Your task to perform on an android device: Open Google Chrome and open the bookmarks view Image 0: 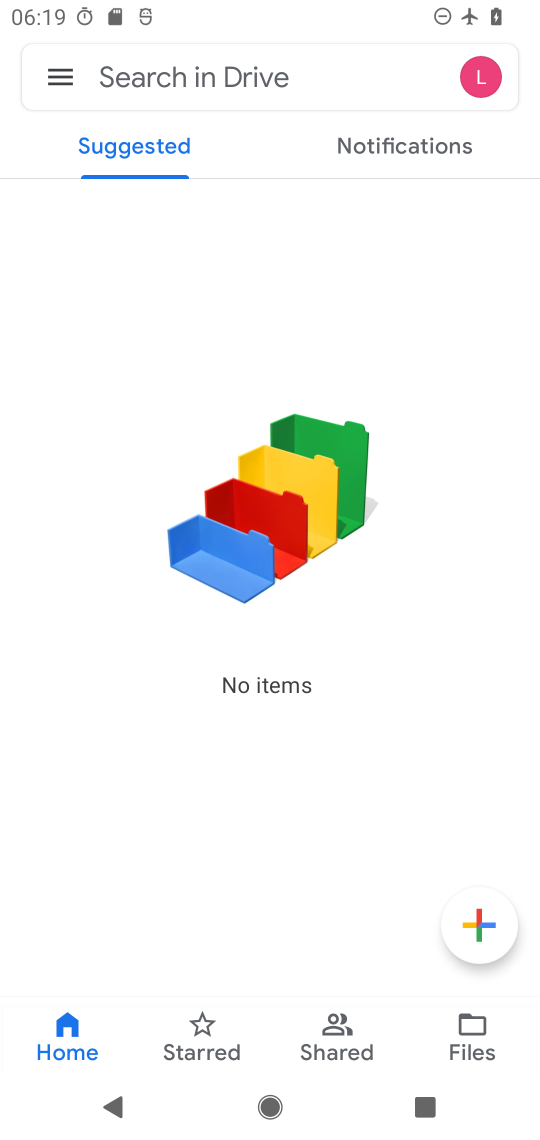
Step 0: press home button
Your task to perform on an android device: Open Google Chrome and open the bookmarks view Image 1: 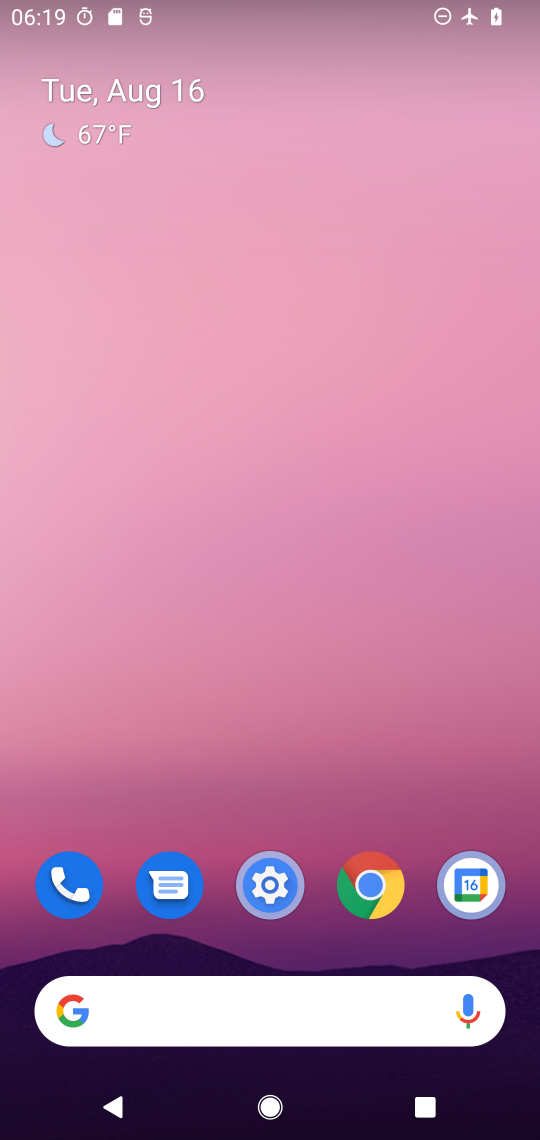
Step 1: drag from (237, 971) to (212, 222)
Your task to perform on an android device: Open Google Chrome and open the bookmarks view Image 2: 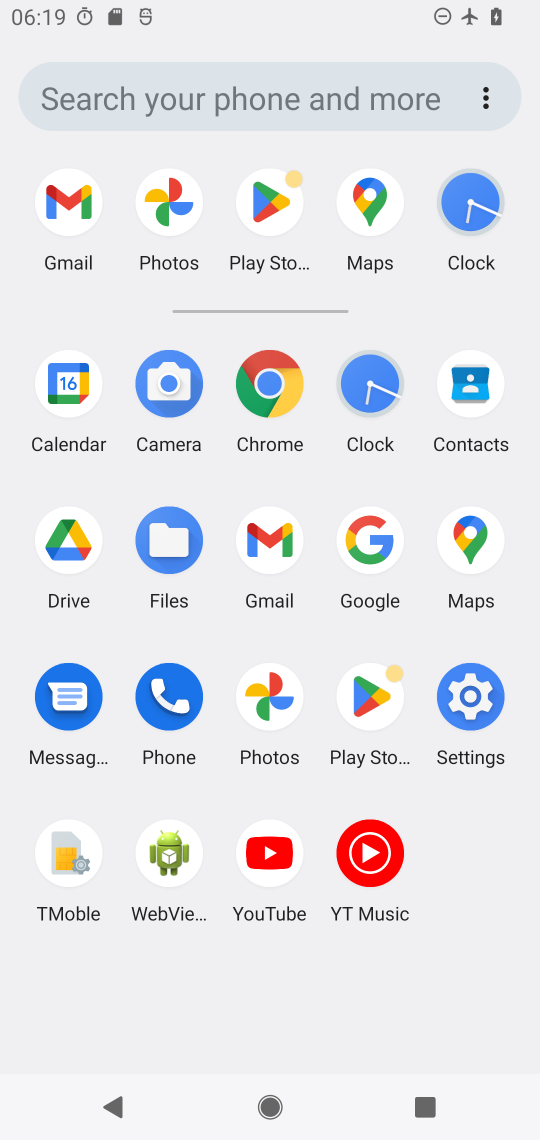
Step 2: click (267, 366)
Your task to perform on an android device: Open Google Chrome and open the bookmarks view Image 3: 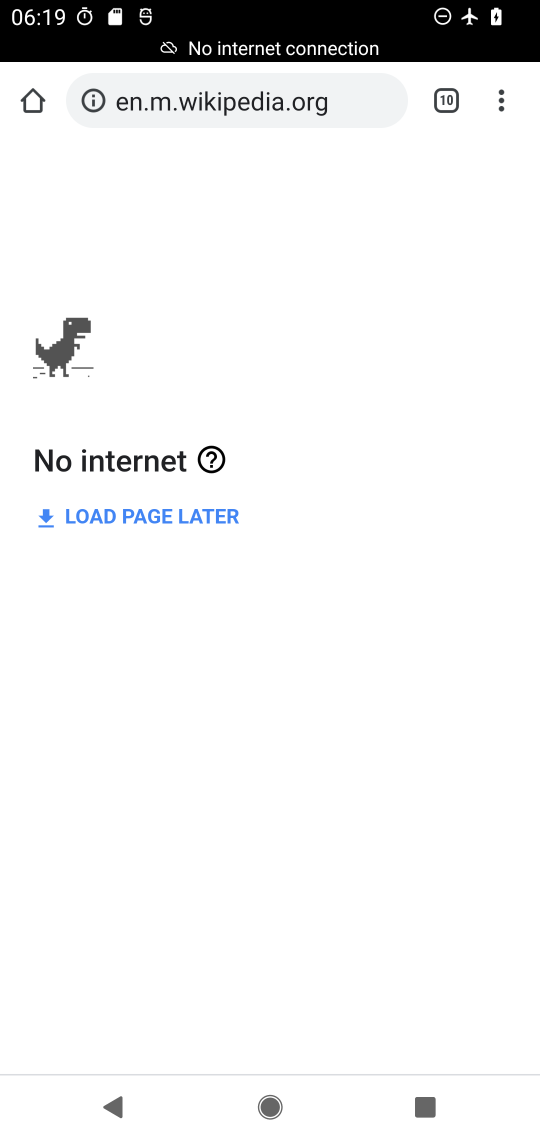
Step 3: click (509, 95)
Your task to perform on an android device: Open Google Chrome and open the bookmarks view Image 4: 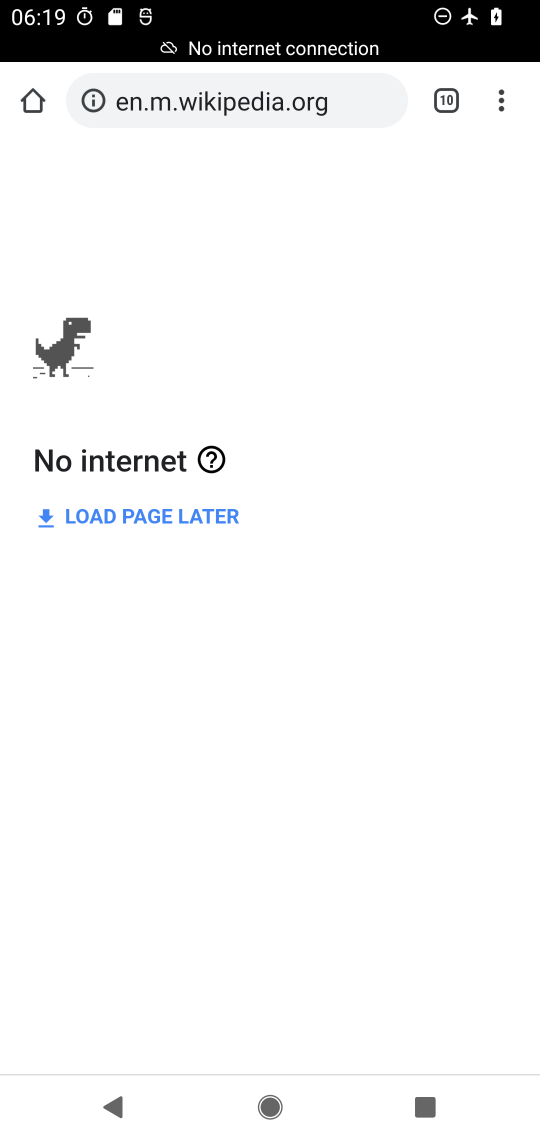
Step 4: click (500, 105)
Your task to perform on an android device: Open Google Chrome and open the bookmarks view Image 5: 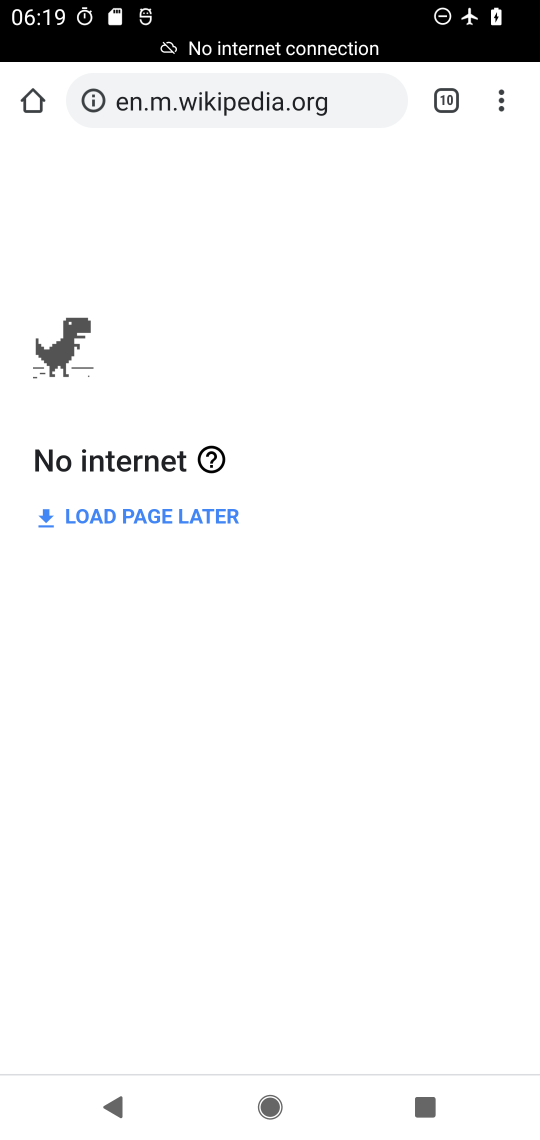
Step 5: click (500, 105)
Your task to perform on an android device: Open Google Chrome and open the bookmarks view Image 6: 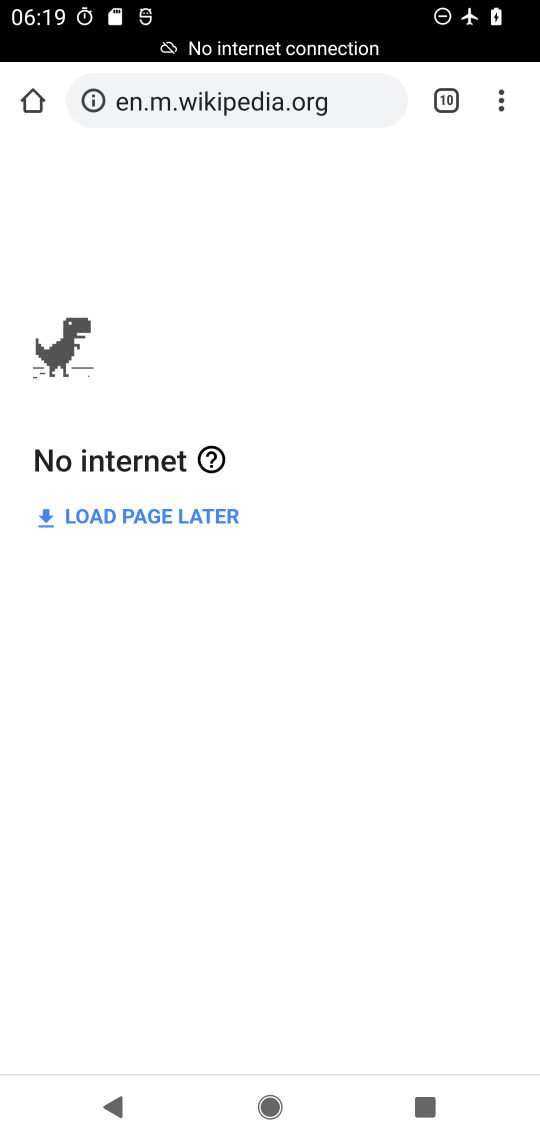
Step 6: click (498, 105)
Your task to perform on an android device: Open Google Chrome and open the bookmarks view Image 7: 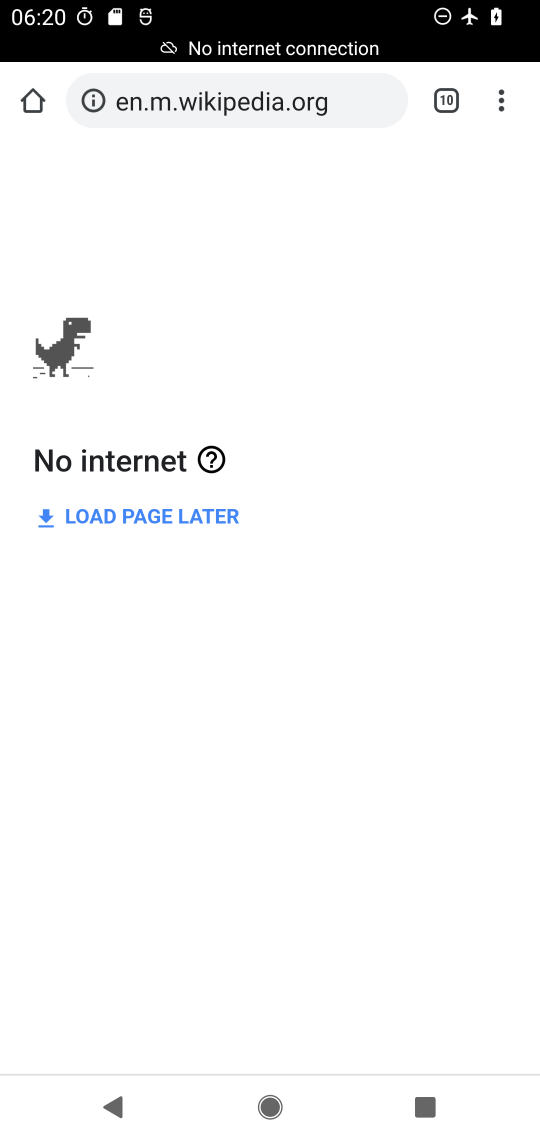
Step 7: click (492, 102)
Your task to perform on an android device: Open Google Chrome and open the bookmarks view Image 8: 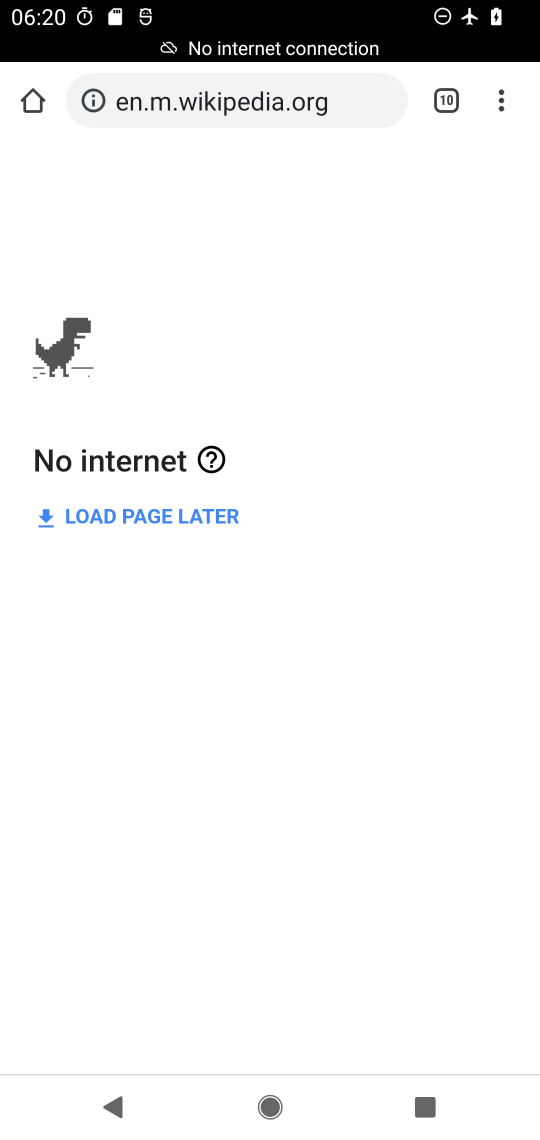
Step 8: click (492, 102)
Your task to perform on an android device: Open Google Chrome and open the bookmarks view Image 9: 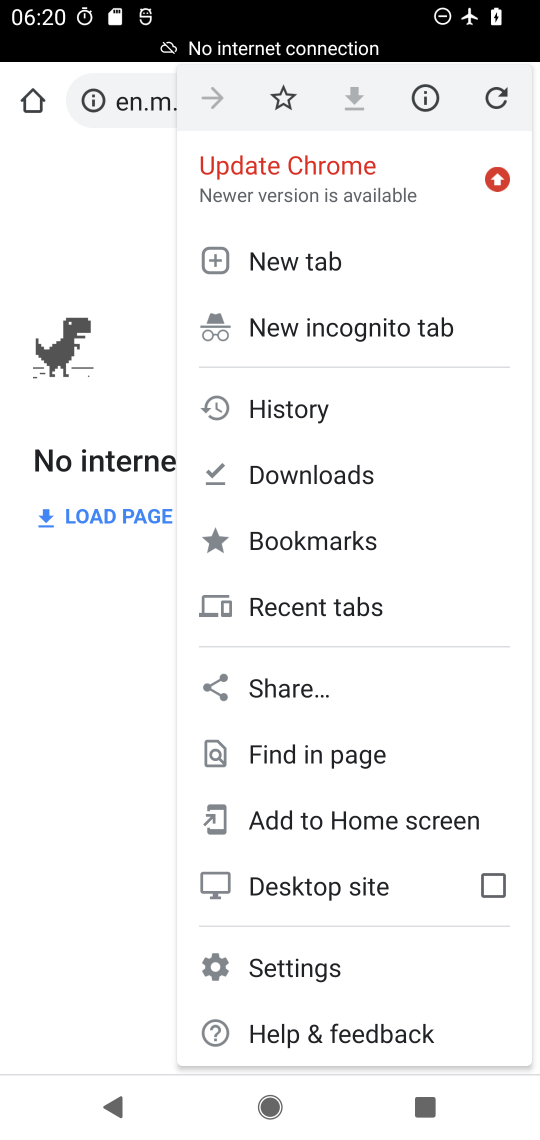
Step 9: click (311, 540)
Your task to perform on an android device: Open Google Chrome and open the bookmarks view Image 10: 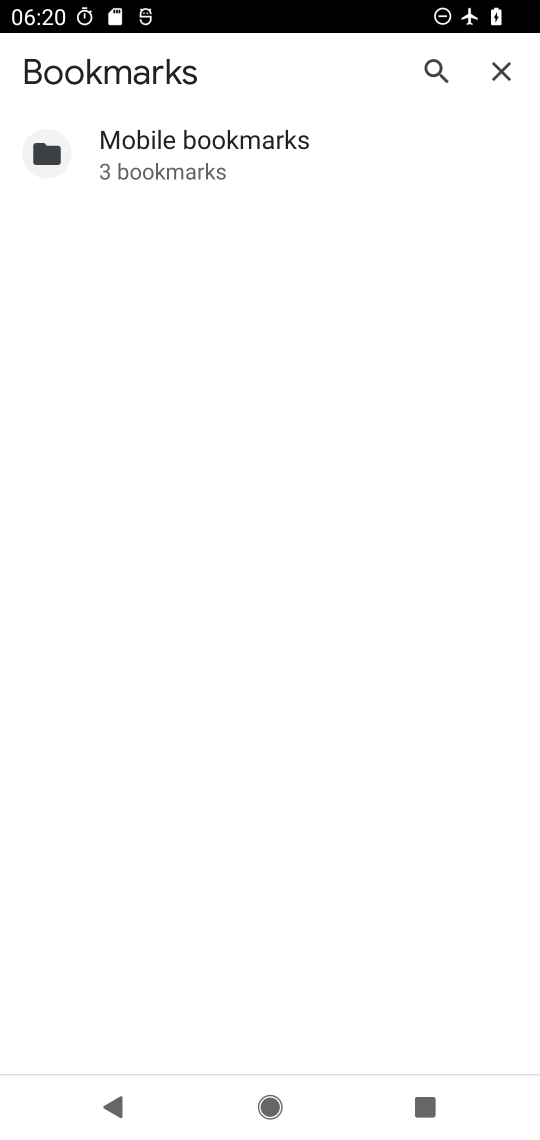
Step 10: task complete